Your task to perform on an android device: change the clock style Image 0: 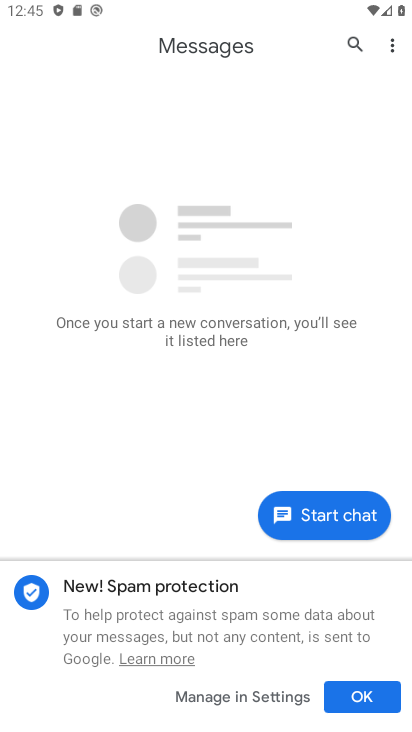
Step 0: press back button
Your task to perform on an android device: change the clock style Image 1: 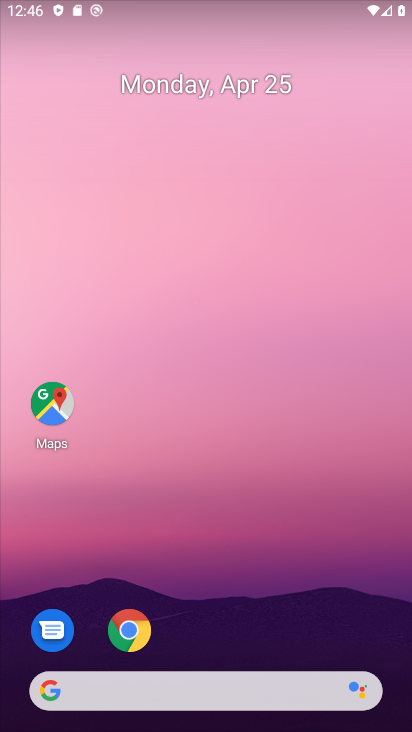
Step 1: drag from (233, 658) to (266, 466)
Your task to perform on an android device: change the clock style Image 2: 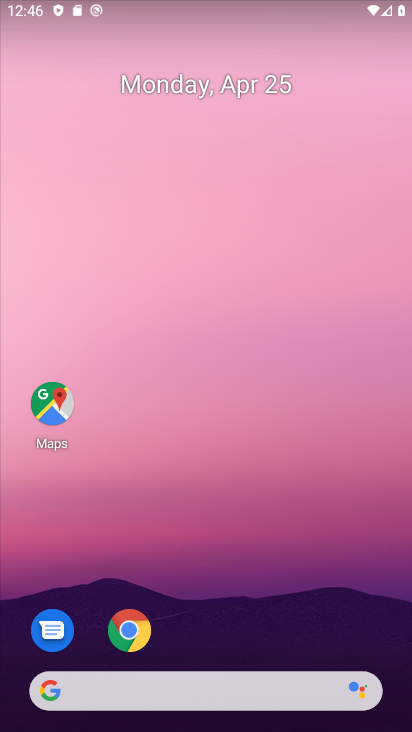
Step 2: drag from (172, 652) to (333, 6)
Your task to perform on an android device: change the clock style Image 3: 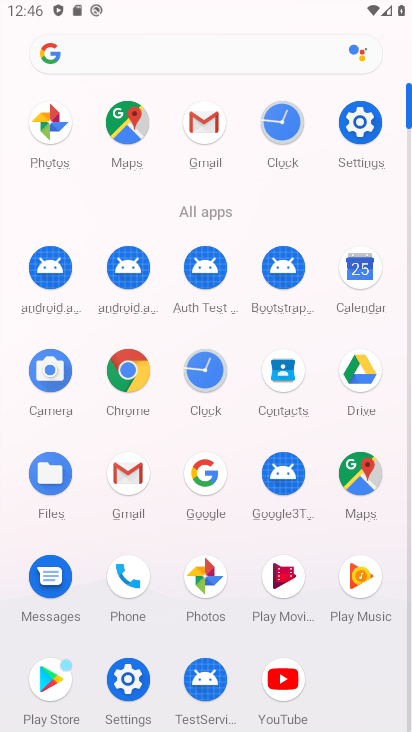
Step 3: click (205, 380)
Your task to perform on an android device: change the clock style Image 4: 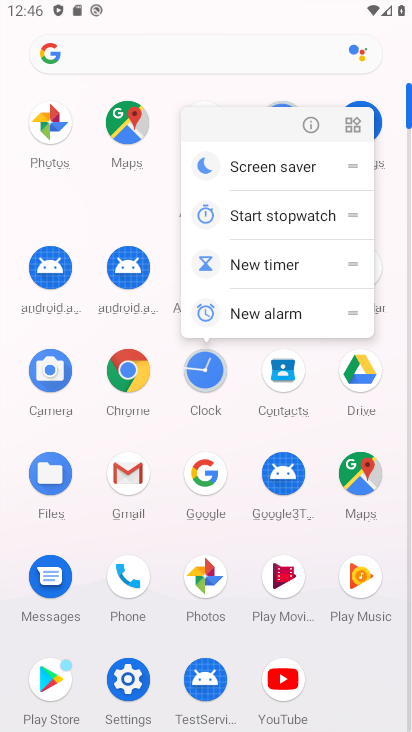
Step 4: click (223, 360)
Your task to perform on an android device: change the clock style Image 5: 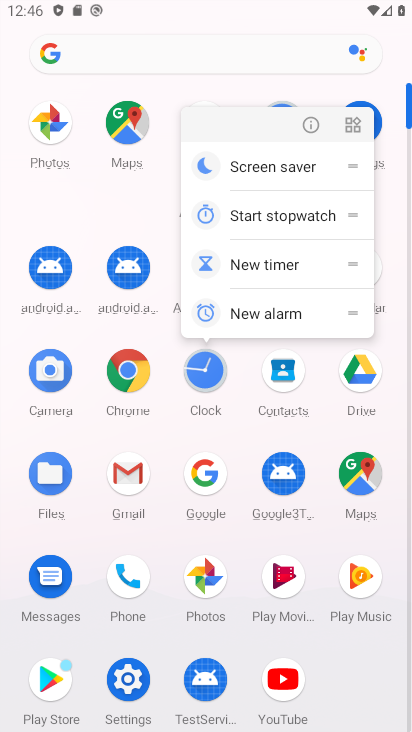
Step 5: click (201, 375)
Your task to perform on an android device: change the clock style Image 6: 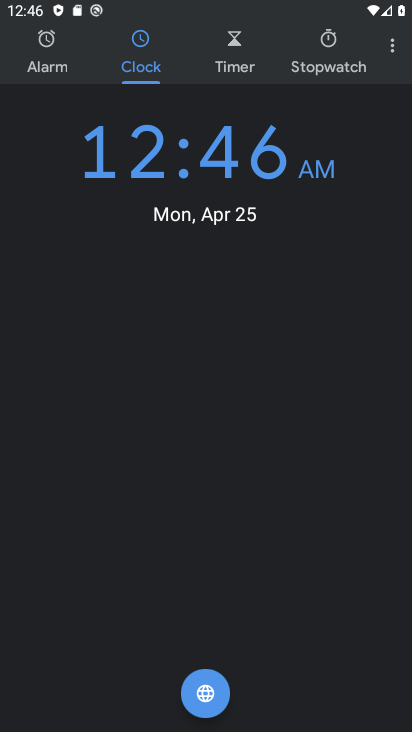
Step 6: click (391, 40)
Your task to perform on an android device: change the clock style Image 7: 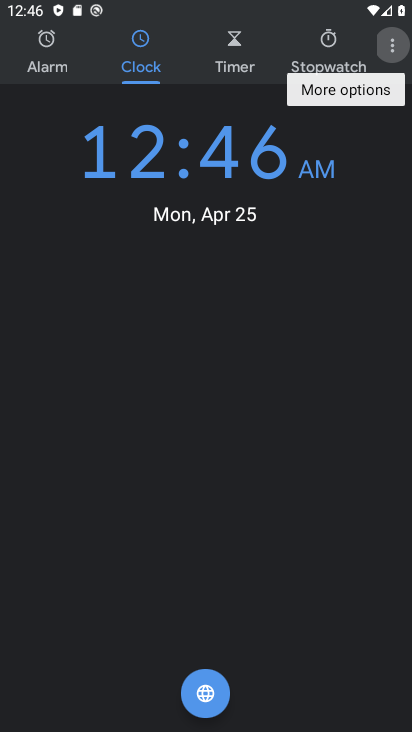
Step 7: click (391, 44)
Your task to perform on an android device: change the clock style Image 8: 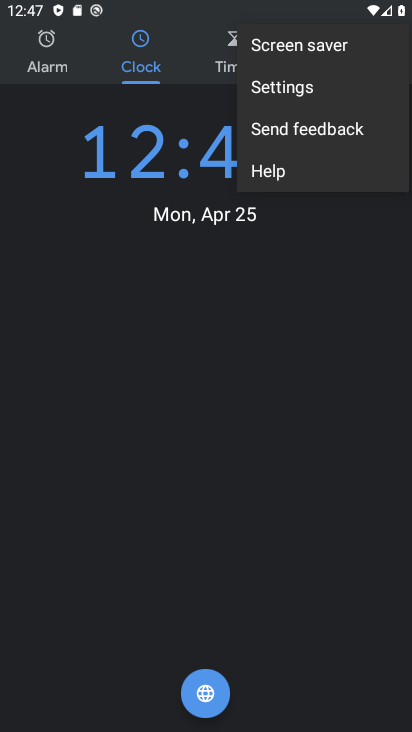
Step 8: click (275, 99)
Your task to perform on an android device: change the clock style Image 9: 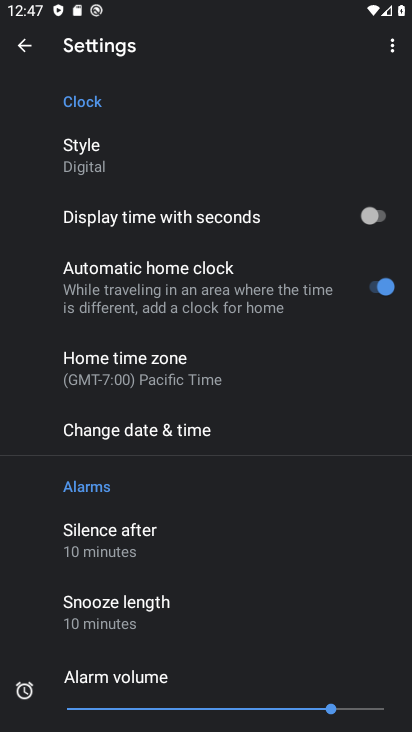
Step 9: click (160, 152)
Your task to perform on an android device: change the clock style Image 10: 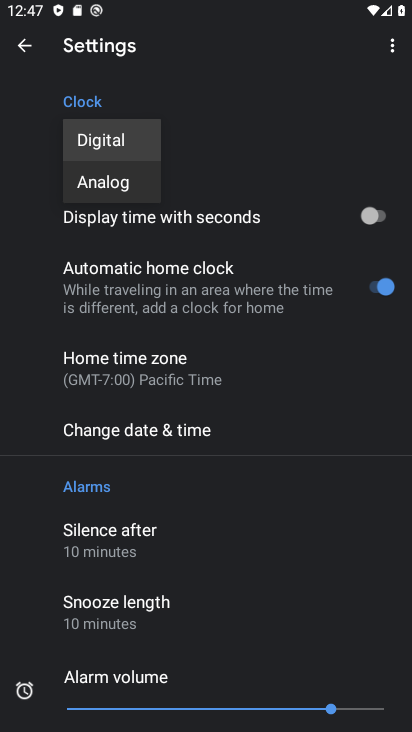
Step 10: click (127, 189)
Your task to perform on an android device: change the clock style Image 11: 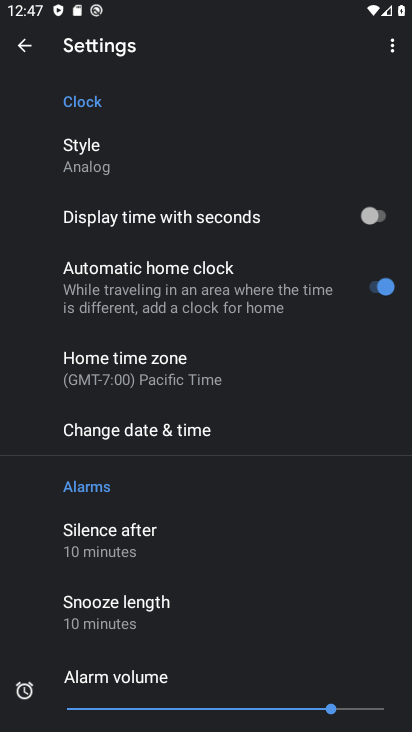
Step 11: task complete